Your task to perform on an android device: Open my contact list Image 0: 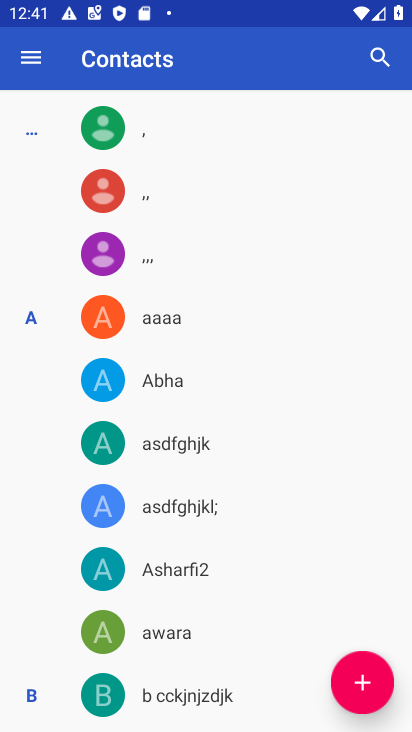
Step 0: drag from (190, 627) to (200, 271)
Your task to perform on an android device: Open my contact list Image 1: 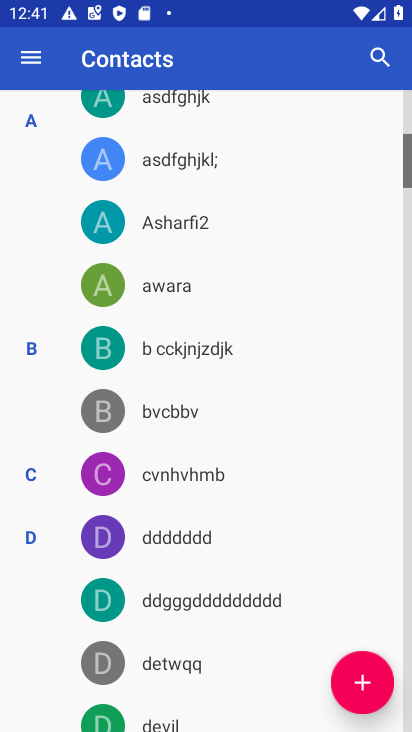
Step 1: task complete